Your task to perform on an android device: Go to Yahoo.com Image 0: 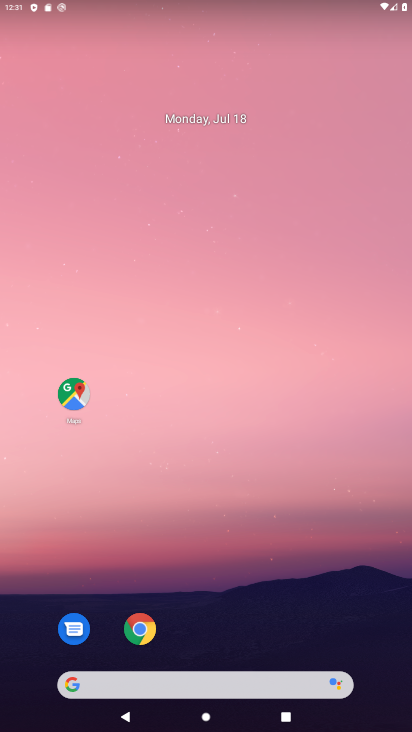
Step 0: click (141, 631)
Your task to perform on an android device: Go to Yahoo.com Image 1: 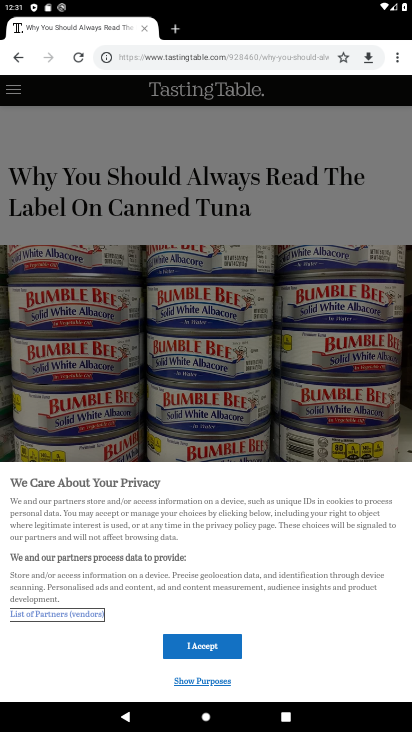
Step 1: click (197, 651)
Your task to perform on an android device: Go to Yahoo.com Image 2: 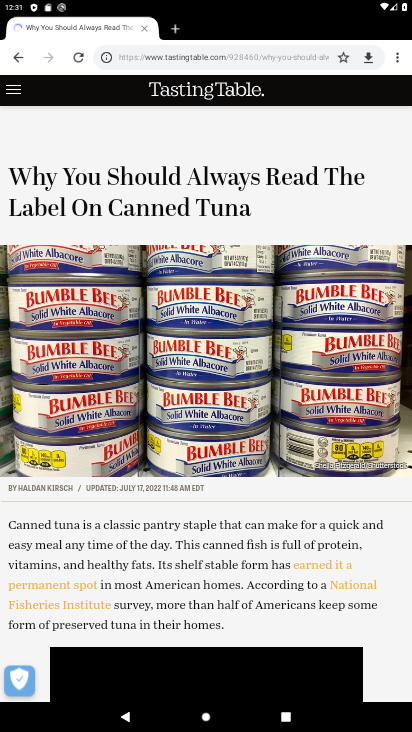
Step 2: click (399, 60)
Your task to perform on an android device: Go to Yahoo.com Image 3: 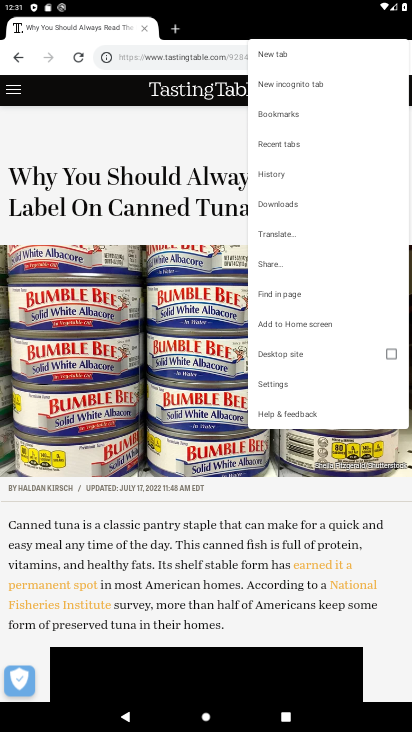
Step 3: click (272, 56)
Your task to perform on an android device: Go to Yahoo.com Image 4: 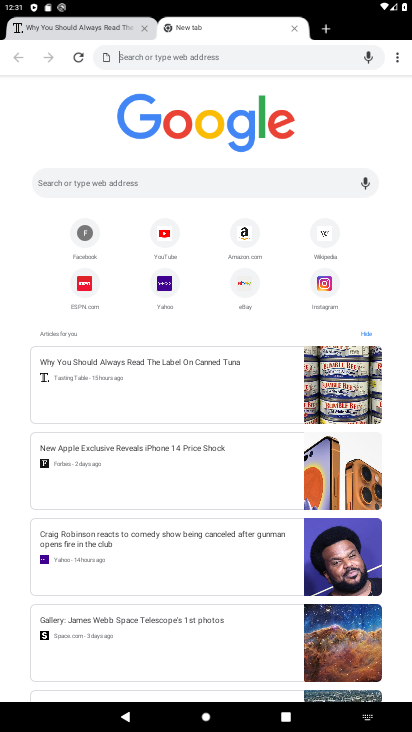
Step 4: click (168, 280)
Your task to perform on an android device: Go to Yahoo.com Image 5: 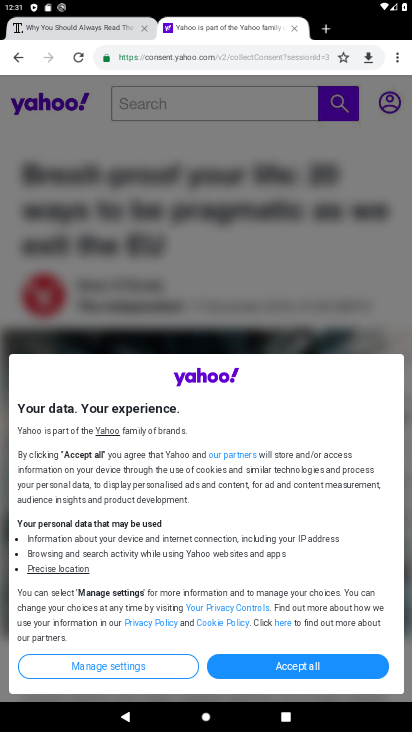
Step 5: click (296, 672)
Your task to perform on an android device: Go to Yahoo.com Image 6: 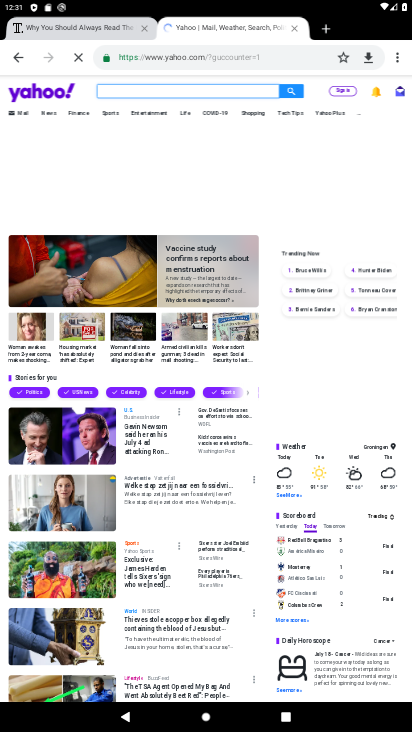
Step 6: task complete